Your task to perform on an android device: see sites visited before in the chrome app Image 0: 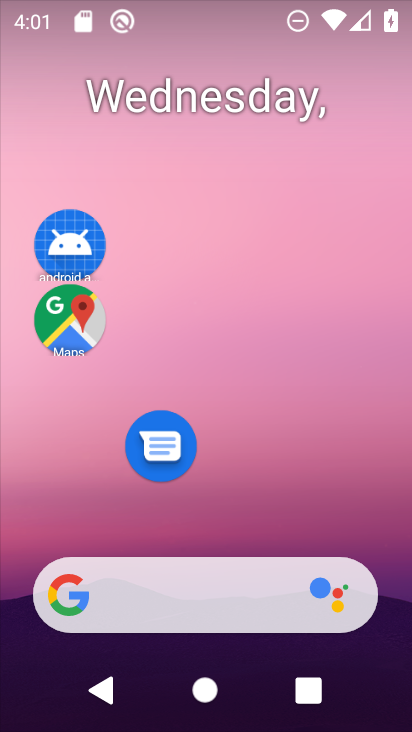
Step 0: drag from (296, 526) to (150, 0)
Your task to perform on an android device: see sites visited before in the chrome app Image 1: 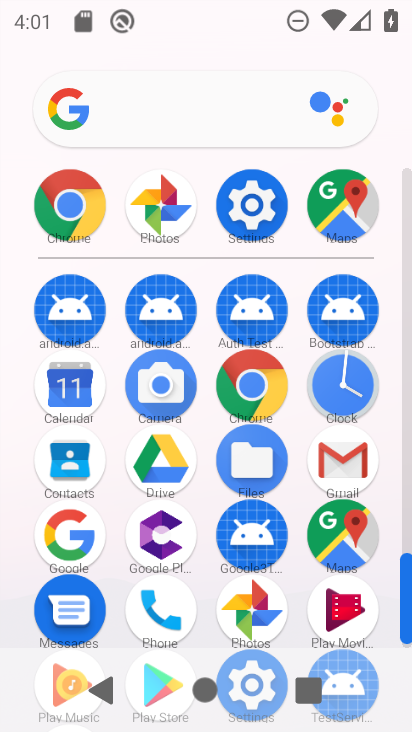
Step 1: click (87, 223)
Your task to perform on an android device: see sites visited before in the chrome app Image 2: 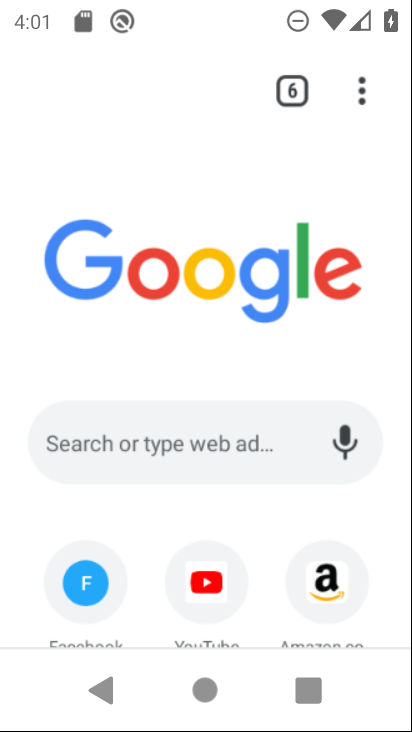
Step 2: click (367, 94)
Your task to perform on an android device: see sites visited before in the chrome app Image 3: 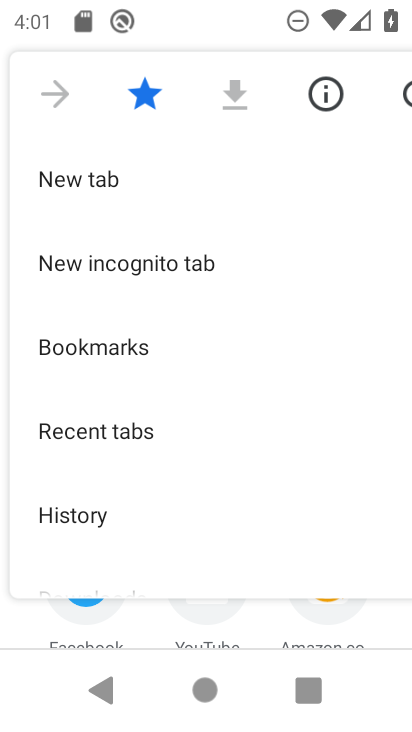
Step 3: click (231, 447)
Your task to perform on an android device: see sites visited before in the chrome app Image 4: 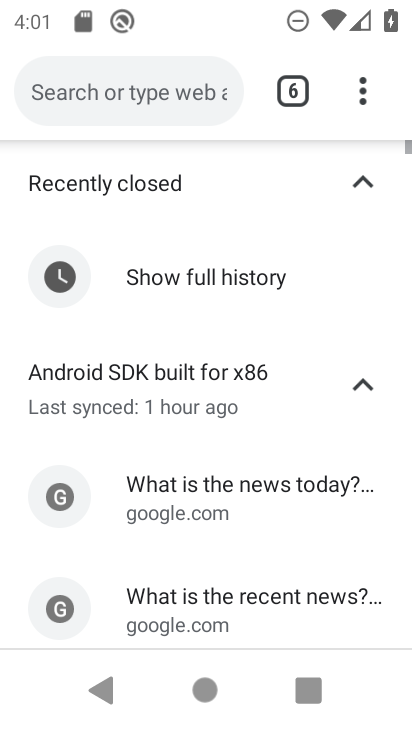
Step 4: task complete